Your task to perform on an android device: turn on improve location accuracy Image 0: 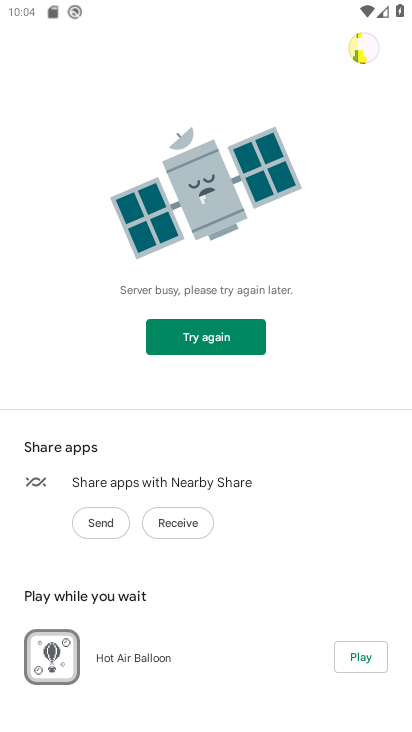
Step 0: press home button
Your task to perform on an android device: turn on improve location accuracy Image 1: 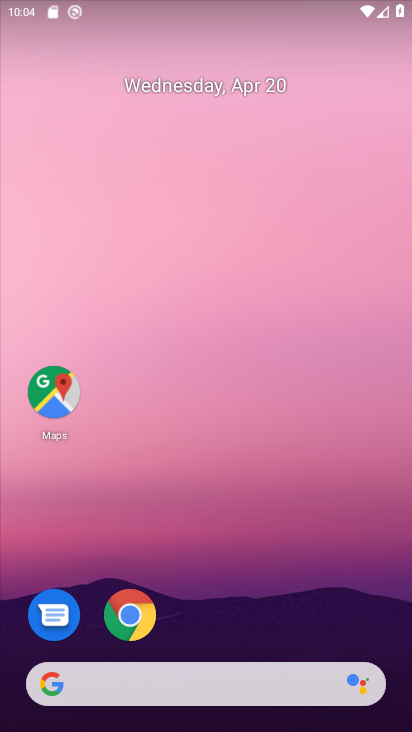
Step 1: drag from (345, 518) to (340, 161)
Your task to perform on an android device: turn on improve location accuracy Image 2: 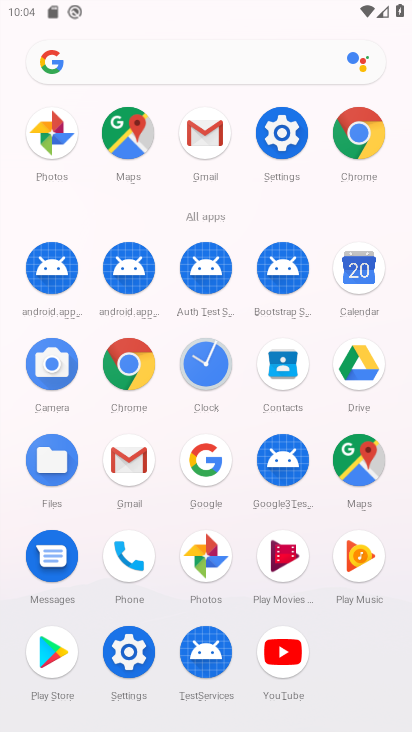
Step 2: click (282, 155)
Your task to perform on an android device: turn on improve location accuracy Image 3: 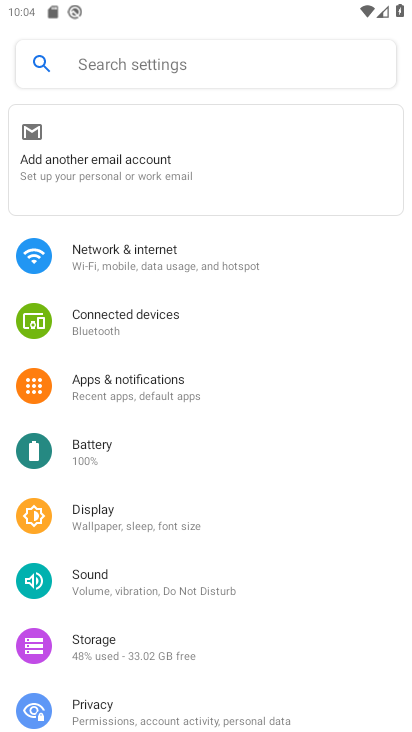
Step 3: drag from (265, 647) to (313, 334)
Your task to perform on an android device: turn on improve location accuracy Image 4: 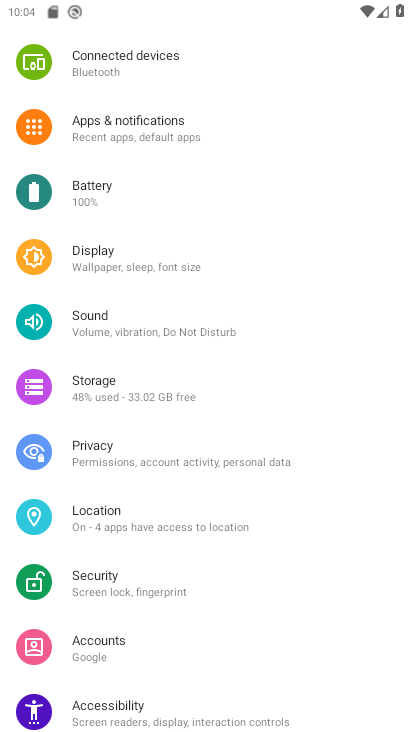
Step 4: click (166, 515)
Your task to perform on an android device: turn on improve location accuracy Image 5: 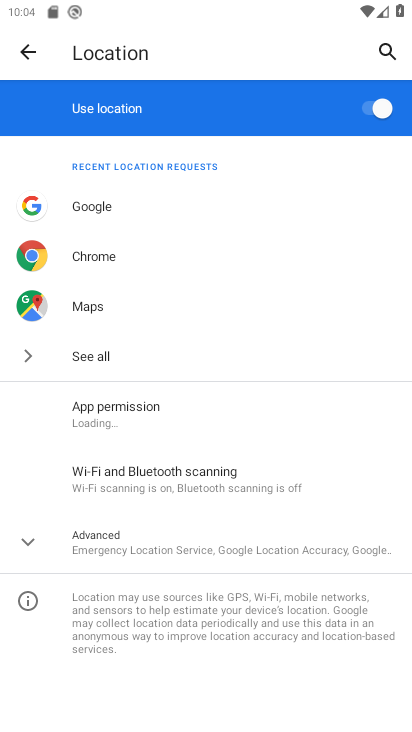
Step 5: click (168, 550)
Your task to perform on an android device: turn on improve location accuracy Image 6: 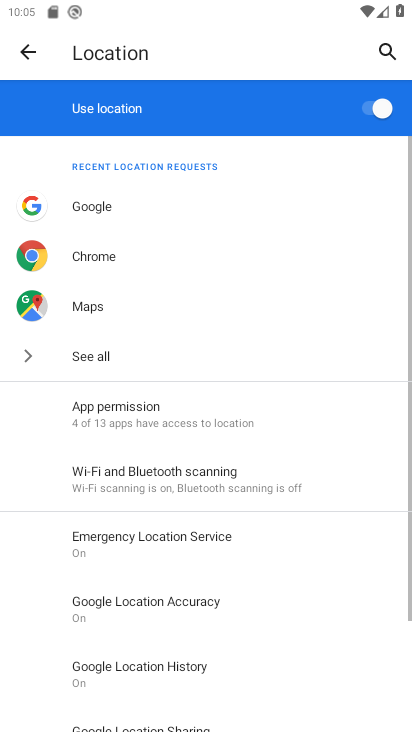
Step 6: drag from (290, 649) to (351, 332)
Your task to perform on an android device: turn on improve location accuracy Image 7: 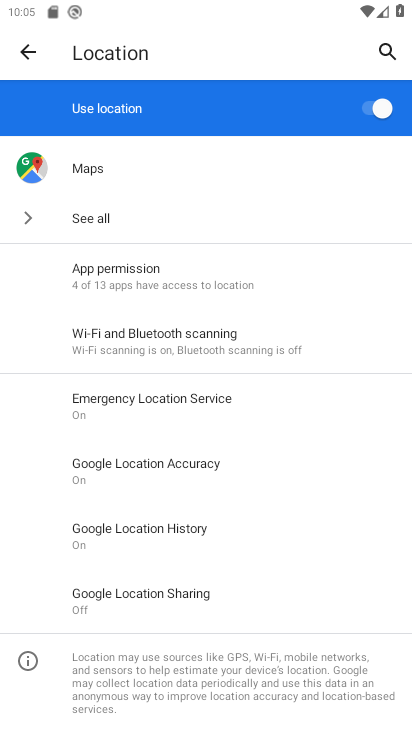
Step 7: click (187, 464)
Your task to perform on an android device: turn on improve location accuracy Image 8: 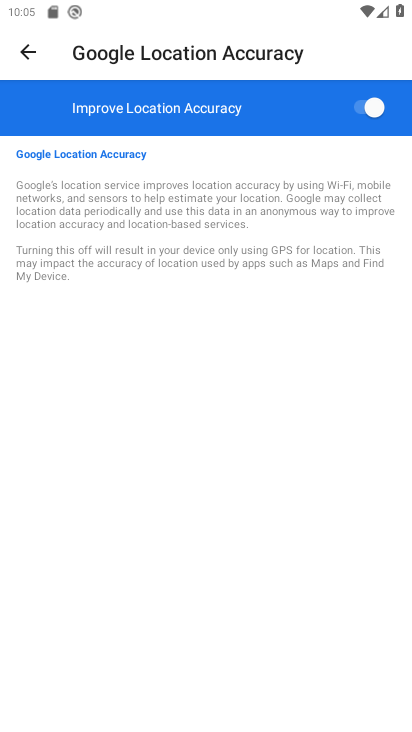
Step 8: task complete